Your task to perform on an android device: set the timer Image 0: 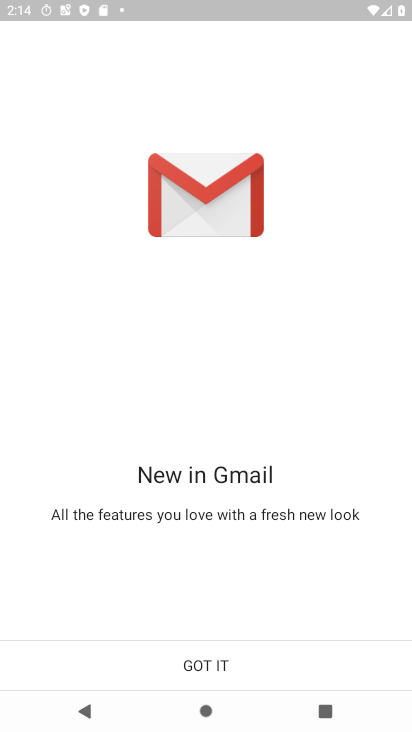
Step 0: press home button
Your task to perform on an android device: set the timer Image 1: 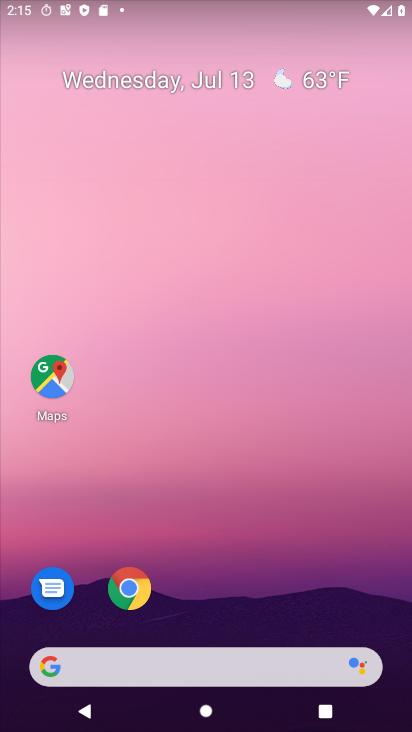
Step 1: drag from (170, 637) to (184, 96)
Your task to perform on an android device: set the timer Image 2: 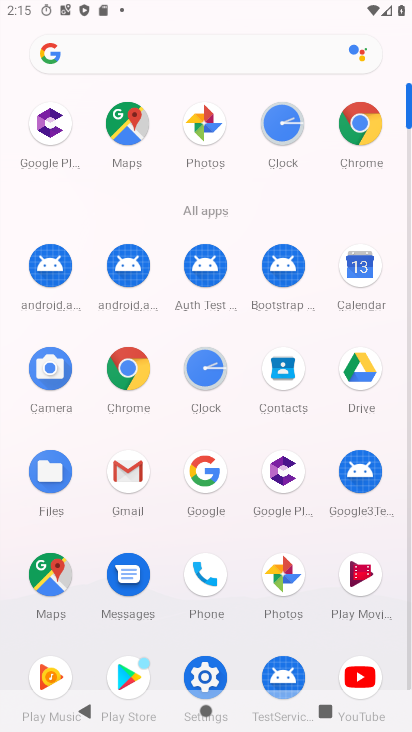
Step 2: click (204, 374)
Your task to perform on an android device: set the timer Image 3: 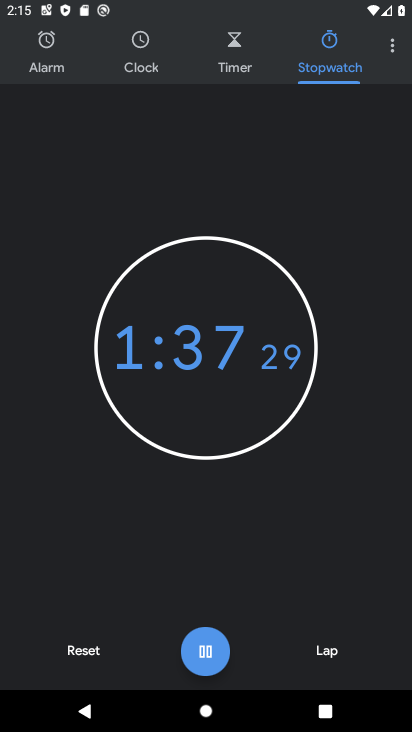
Step 3: click (237, 44)
Your task to perform on an android device: set the timer Image 4: 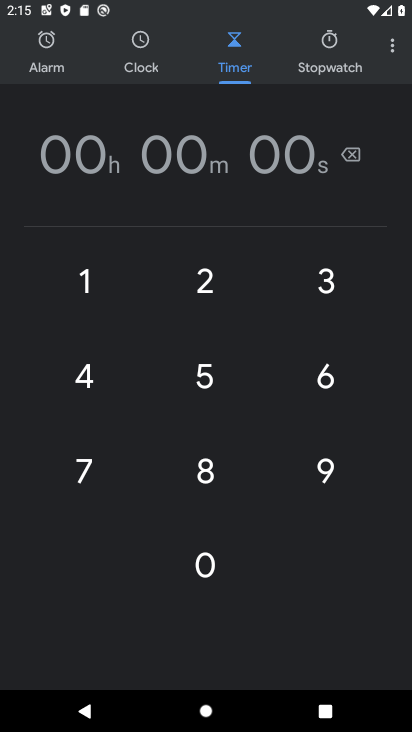
Step 4: click (198, 393)
Your task to perform on an android device: set the timer Image 5: 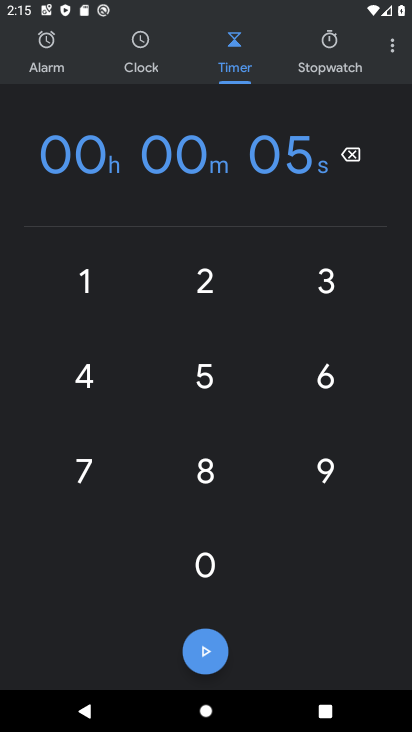
Step 5: click (122, 374)
Your task to perform on an android device: set the timer Image 6: 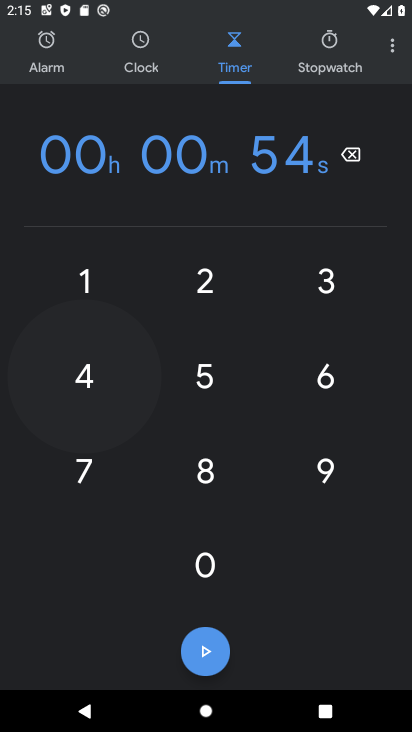
Step 6: click (69, 481)
Your task to perform on an android device: set the timer Image 7: 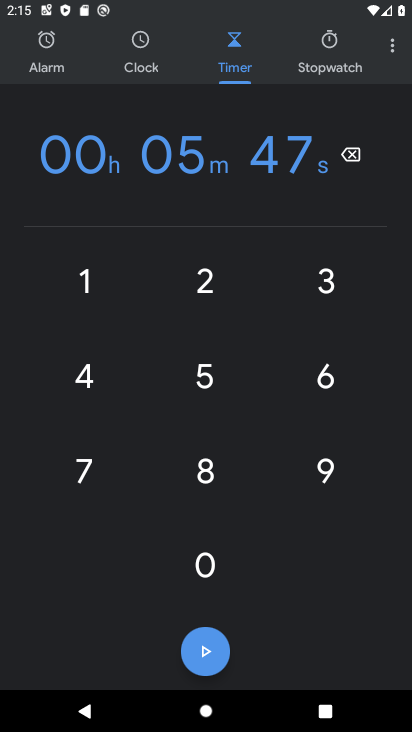
Step 7: click (190, 471)
Your task to perform on an android device: set the timer Image 8: 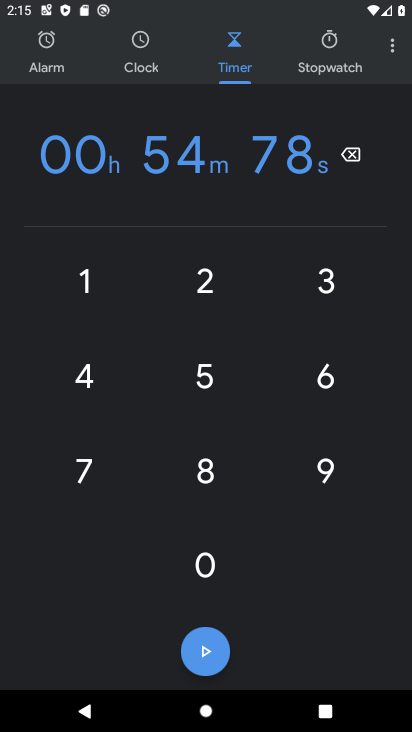
Step 8: click (181, 655)
Your task to perform on an android device: set the timer Image 9: 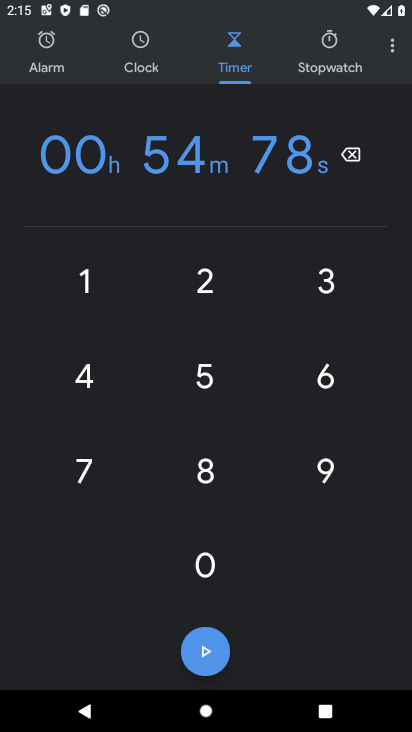
Step 9: click (210, 647)
Your task to perform on an android device: set the timer Image 10: 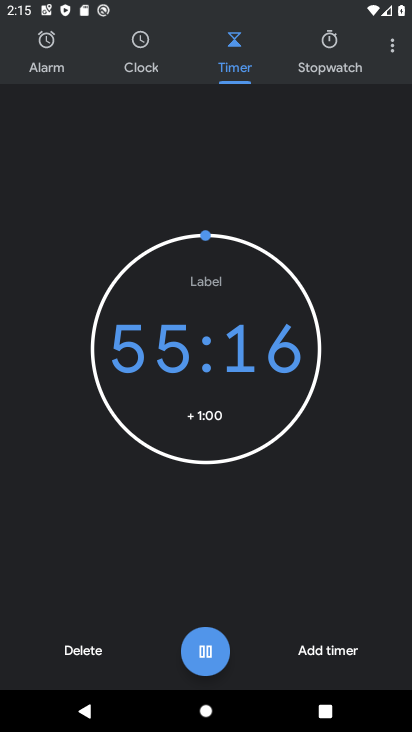
Step 10: task complete